Your task to perform on an android device: toggle notifications settings in the gmail app Image 0: 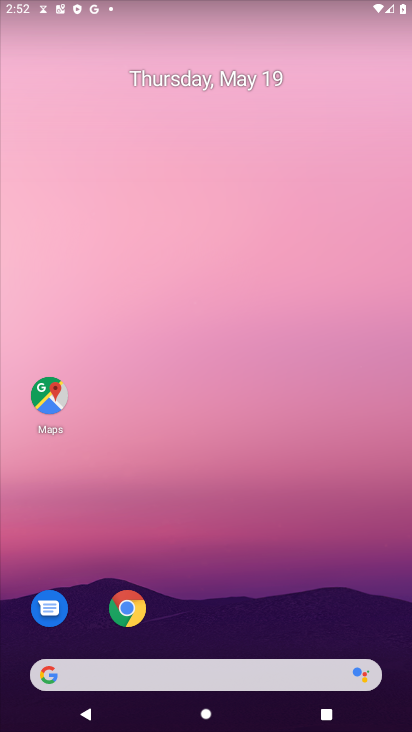
Step 0: drag from (261, 630) to (200, 15)
Your task to perform on an android device: toggle notifications settings in the gmail app Image 1: 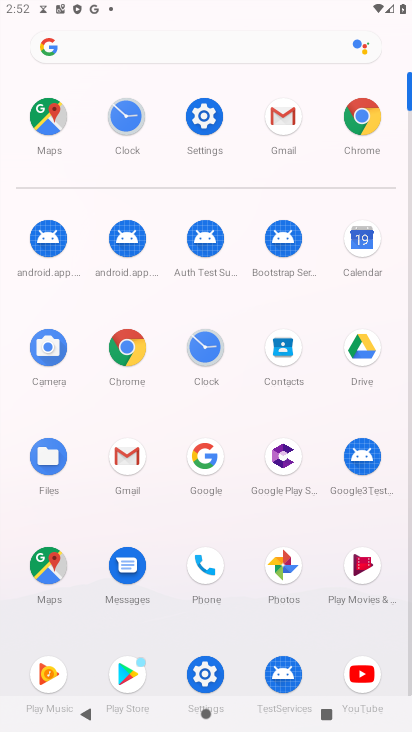
Step 1: click (284, 126)
Your task to perform on an android device: toggle notifications settings in the gmail app Image 2: 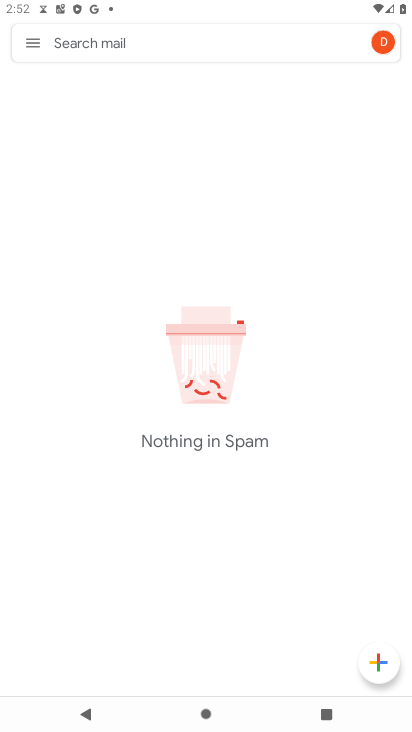
Step 2: click (25, 41)
Your task to perform on an android device: toggle notifications settings in the gmail app Image 3: 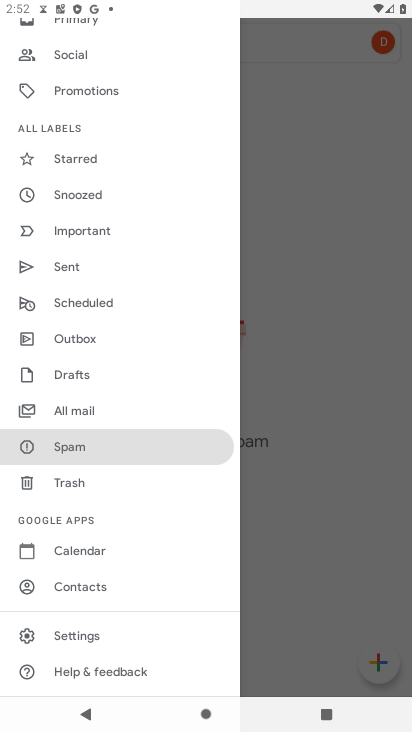
Step 3: click (115, 638)
Your task to perform on an android device: toggle notifications settings in the gmail app Image 4: 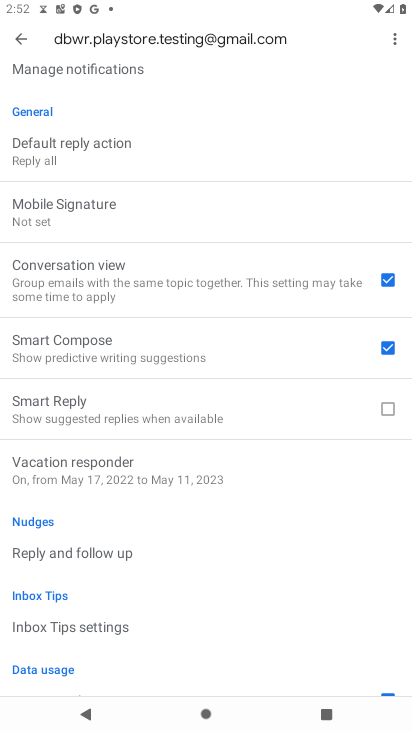
Step 4: drag from (266, 198) to (271, 553)
Your task to perform on an android device: toggle notifications settings in the gmail app Image 5: 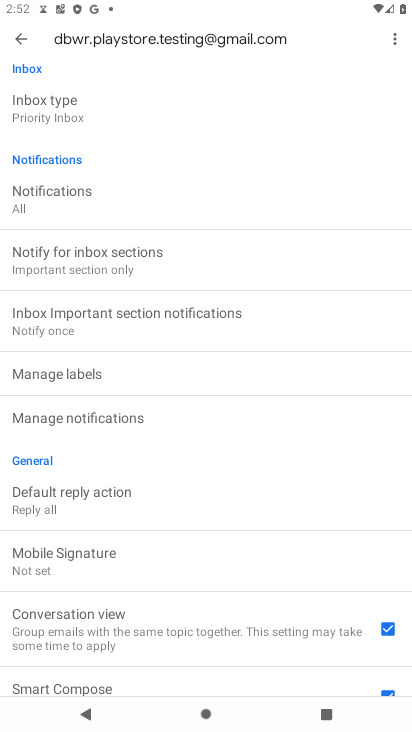
Step 5: click (178, 425)
Your task to perform on an android device: toggle notifications settings in the gmail app Image 6: 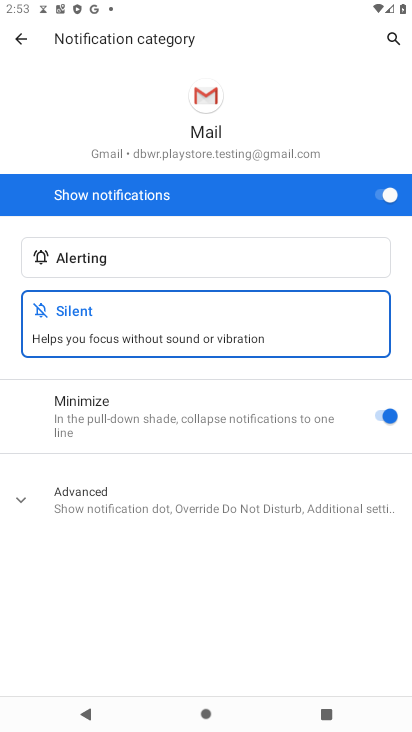
Step 6: click (283, 269)
Your task to perform on an android device: toggle notifications settings in the gmail app Image 7: 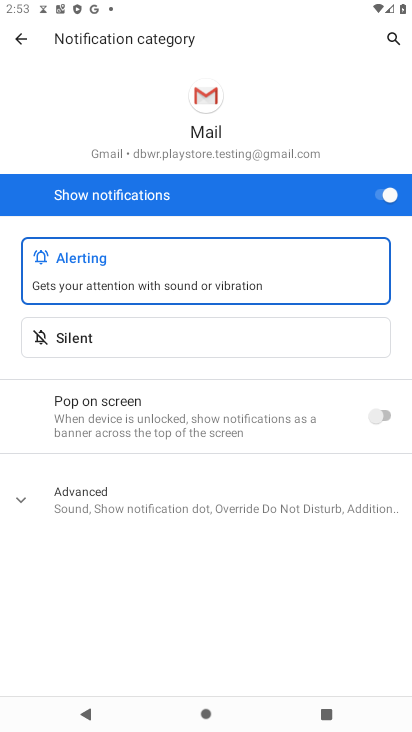
Step 7: click (389, 416)
Your task to perform on an android device: toggle notifications settings in the gmail app Image 8: 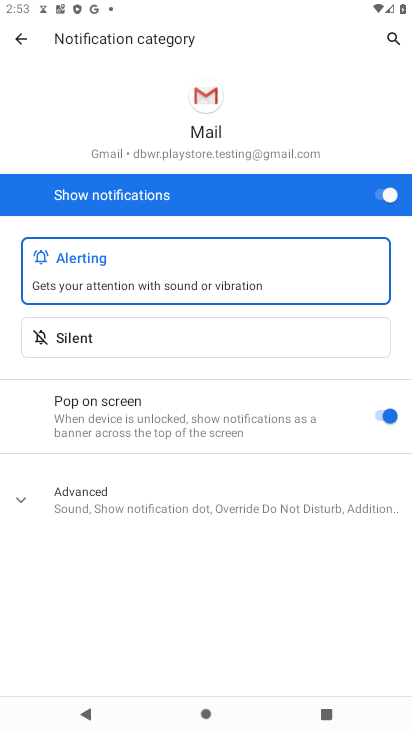
Step 8: task complete